Your task to perform on an android device: Open Google Image 0: 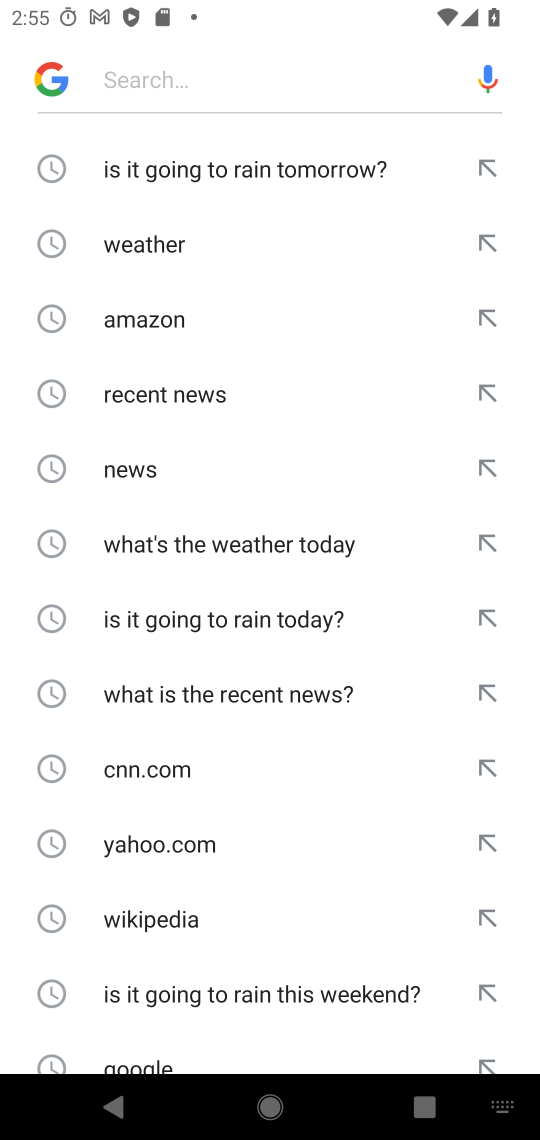
Step 0: task complete